Your task to perform on an android device: clear all cookies in the chrome app Image 0: 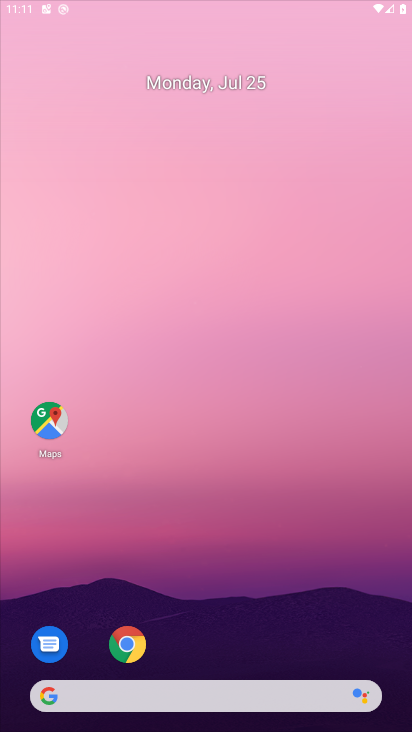
Step 0: press home button
Your task to perform on an android device: clear all cookies in the chrome app Image 1: 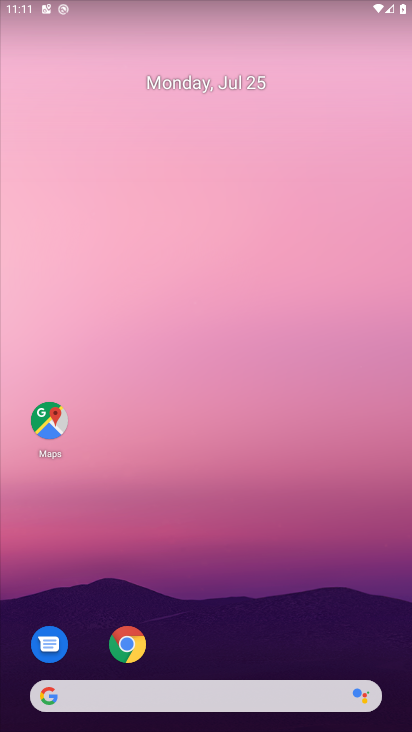
Step 1: drag from (380, 632) to (263, 178)
Your task to perform on an android device: clear all cookies in the chrome app Image 2: 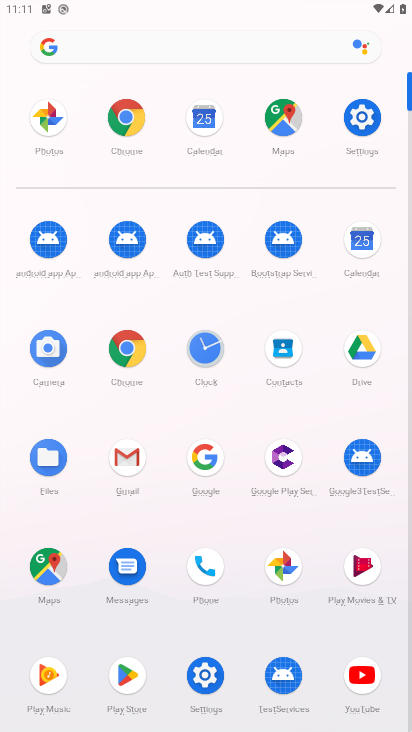
Step 2: click (113, 355)
Your task to perform on an android device: clear all cookies in the chrome app Image 3: 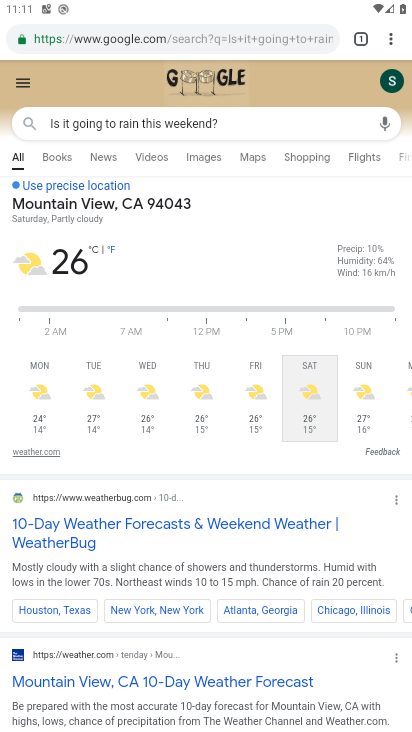
Step 3: click (380, 47)
Your task to perform on an android device: clear all cookies in the chrome app Image 4: 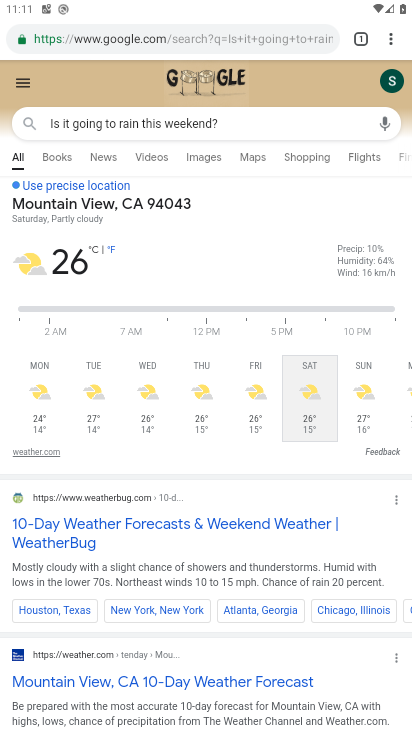
Step 4: drag from (380, 47) to (265, 426)
Your task to perform on an android device: clear all cookies in the chrome app Image 5: 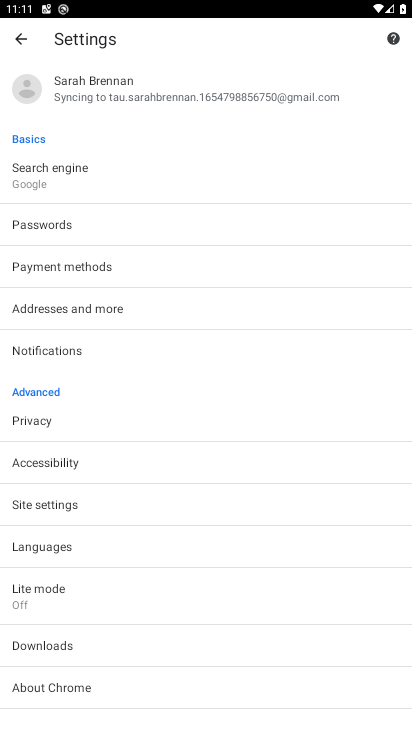
Step 5: click (140, 412)
Your task to perform on an android device: clear all cookies in the chrome app Image 6: 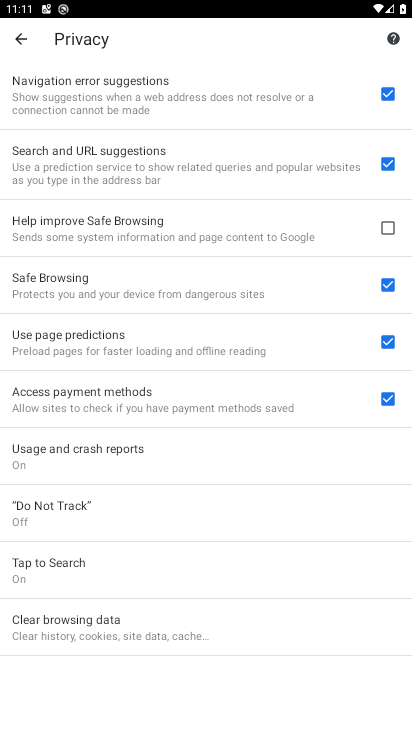
Step 6: click (110, 635)
Your task to perform on an android device: clear all cookies in the chrome app Image 7: 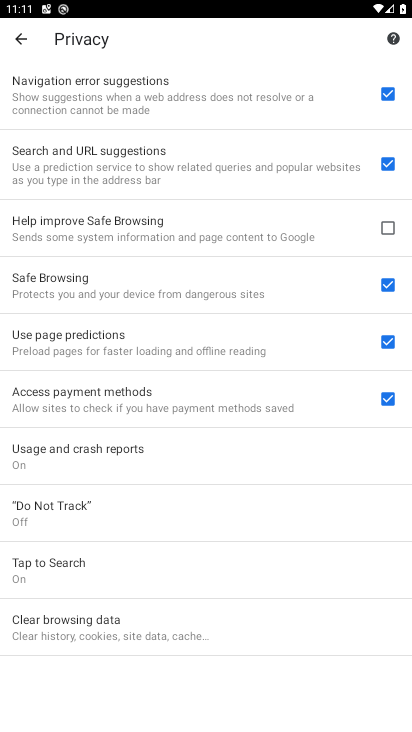
Step 7: click (110, 635)
Your task to perform on an android device: clear all cookies in the chrome app Image 8: 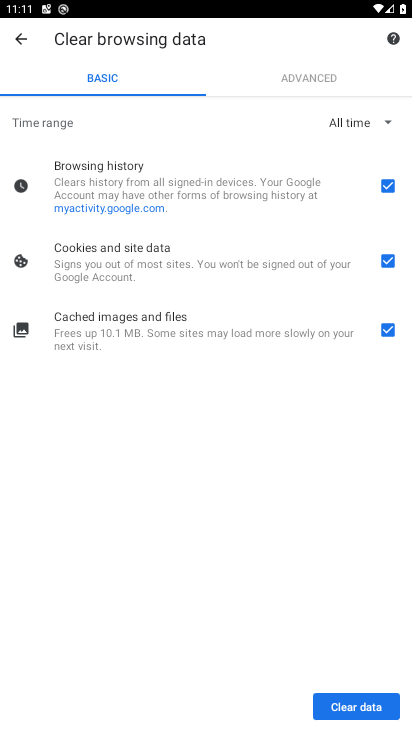
Step 8: click (371, 711)
Your task to perform on an android device: clear all cookies in the chrome app Image 9: 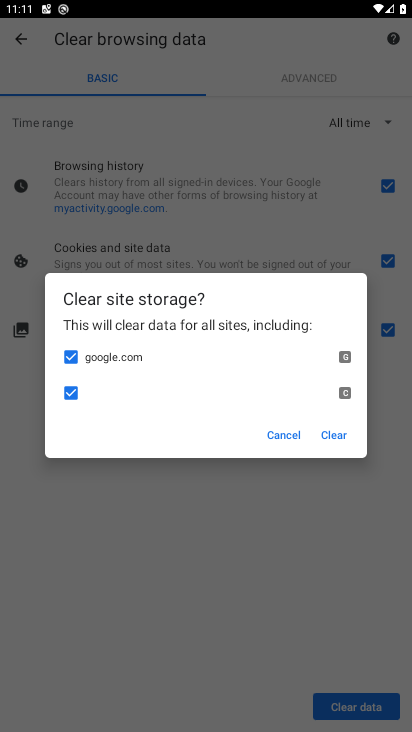
Step 9: click (343, 443)
Your task to perform on an android device: clear all cookies in the chrome app Image 10: 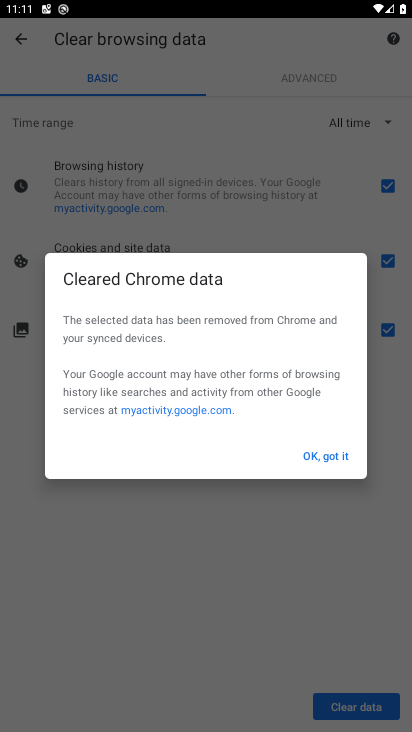
Step 10: click (335, 443)
Your task to perform on an android device: clear all cookies in the chrome app Image 11: 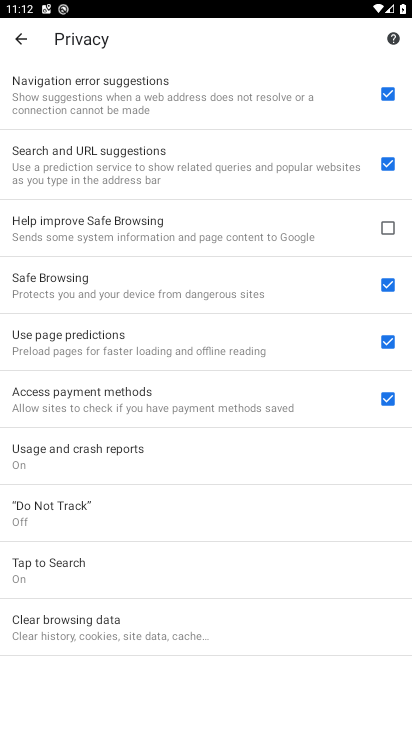
Step 11: task complete